Your task to perform on an android device: change the upload size in google photos Image 0: 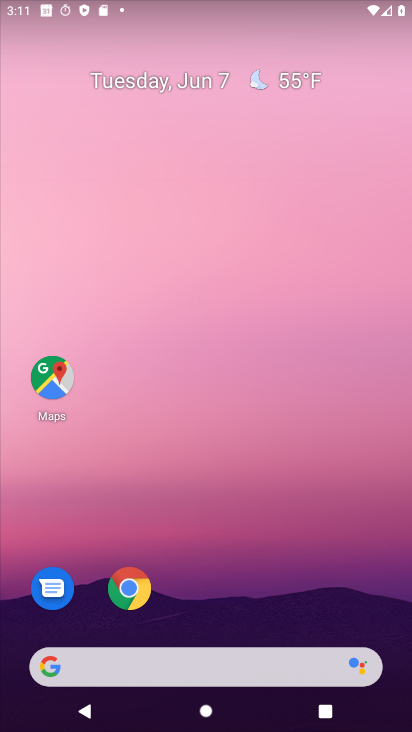
Step 0: press home button
Your task to perform on an android device: change the upload size in google photos Image 1: 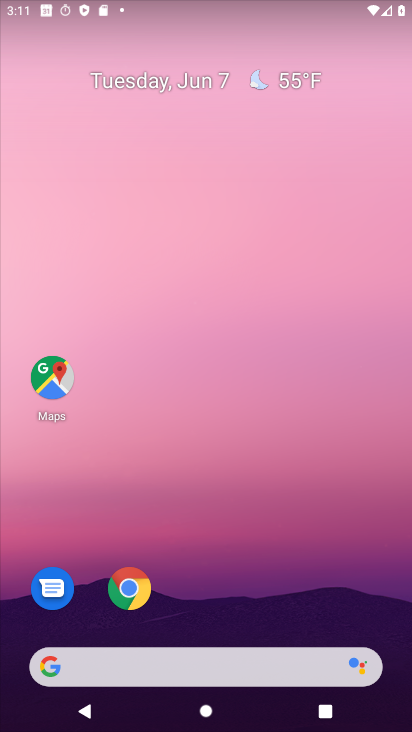
Step 1: drag from (203, 620) to (317, 128)
Your task to perform on an android device: change the upload size in google photos Image 2: 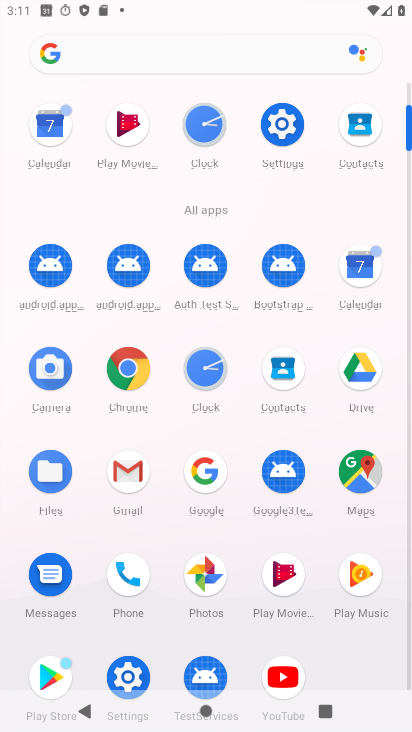
Step 2: click (209, 576)
Your task to perform on an android device: change the upload size in google photos Image 3: 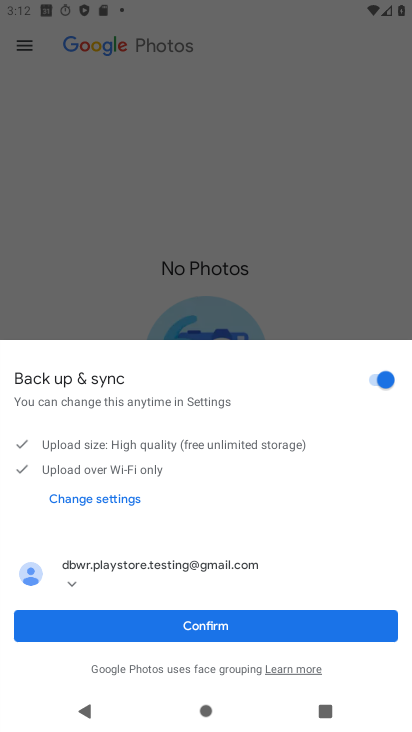
Step 3: click (179, 629)
Your task to perform on an android device: change the upload size in google photos Image 4: 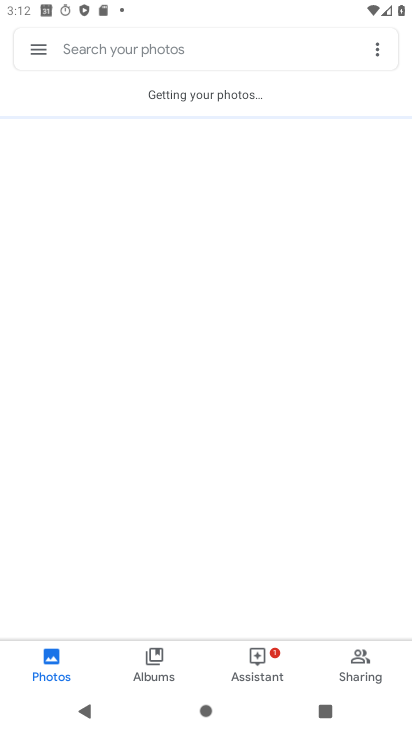
Step 4: click (41, 48)
Your task to perform on an android device: change the upload size in google photos Image 5: 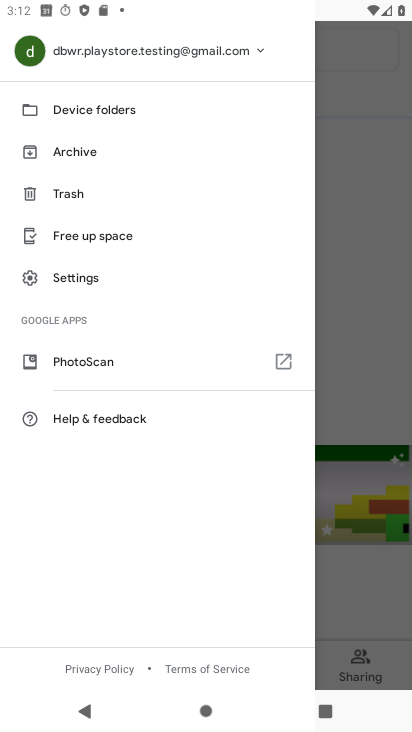
Step 5: click (83, 279)
Your task to perform on an android device: change the upload size in google photos Image 6: 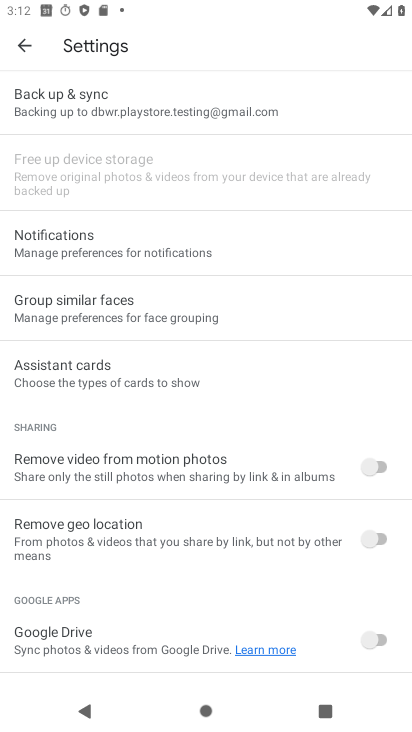
Step 6: click (73, 118)
Your task to perform on an android device: change the upload size in google photos Image 7: 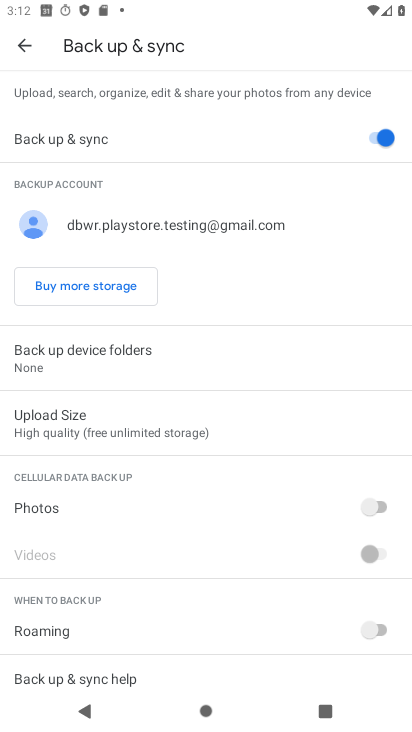
Step 7: click (88, 433)
Your task to perform on an android device: change the upload size in google photos Image 8: 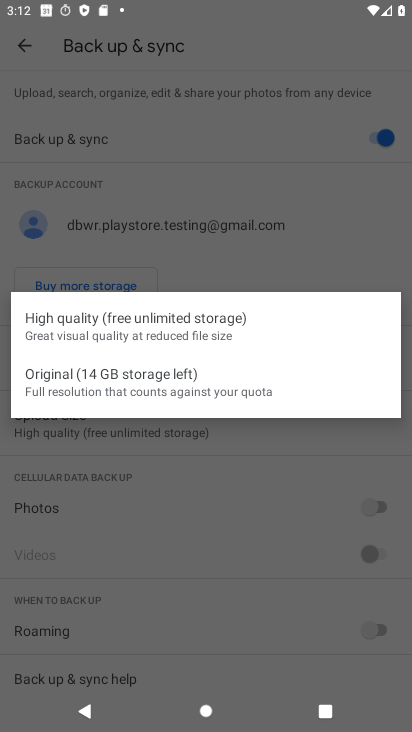
Step 8: click (72, 385)
Your task to perform on an android device: change the upload size in google photos Image 9: 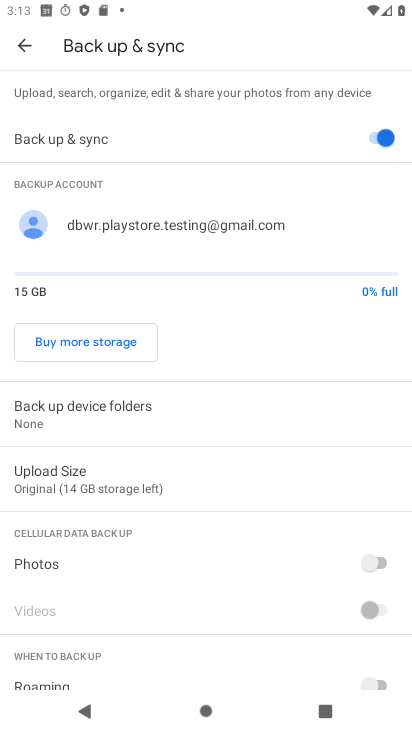
Step 9: task complete